Your task to perform on an android device: Open the calendar and show me this week's events? Image 0: 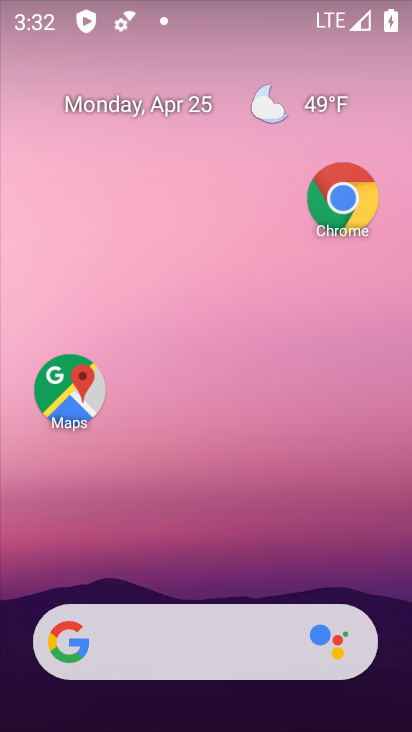
Step 0: drag from (102, 655) to (273, 168)
Your task to perform on an android device: Open the calendar and show me this week's events? Image 1: 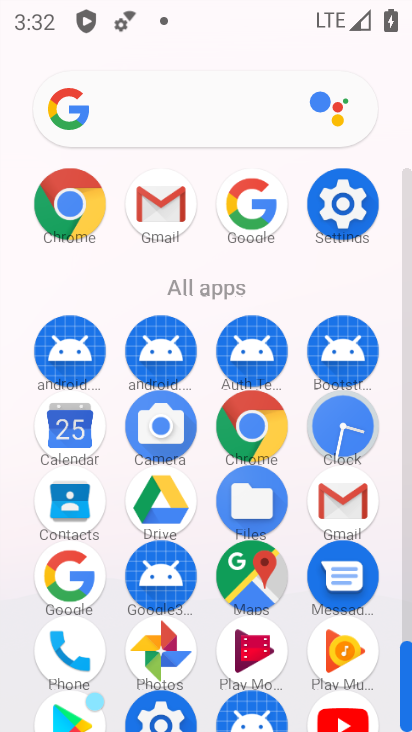
Step 1: click (71, 446)
Your task to perform on an android device: Open the calendar and show me this week's events? Image 2: 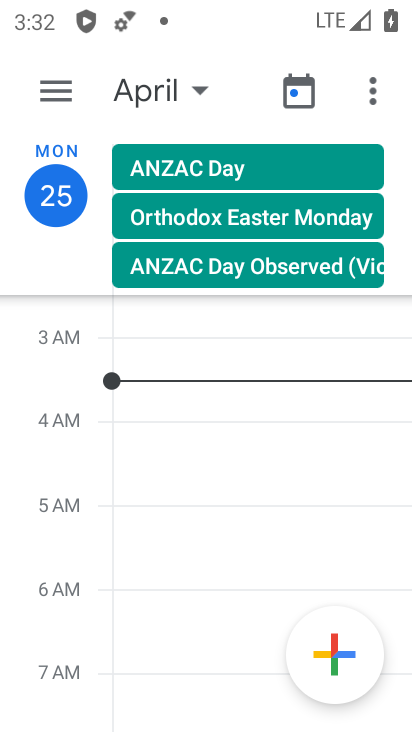
Step 2: click (136, 92)
Your task to perform on an android device: Open the calendar and show me this week's events? Image 3: 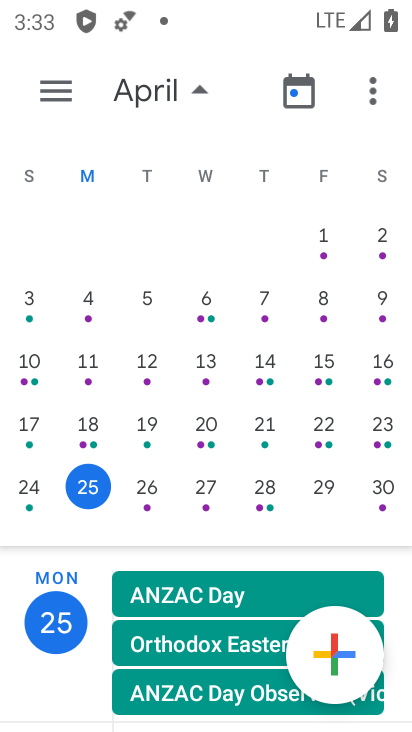
Step 3: click (48, 84)
Your task to perform on an android device: Open the calendar and show me this week's events? Image 4: 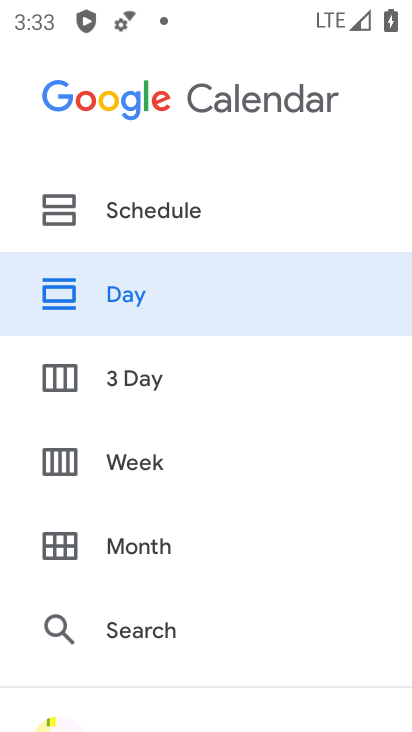
Step 4: click (135, 469)
Your task to perform on an android device: Open the calendar and show me this week's events? Image 5: 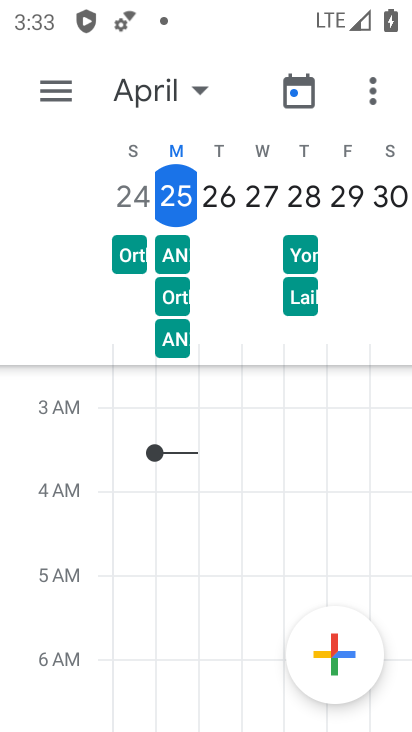
Step 5: click (63, 82)
Your task to perform on an android device: Open the calendar and show me this week's events? Image 6: 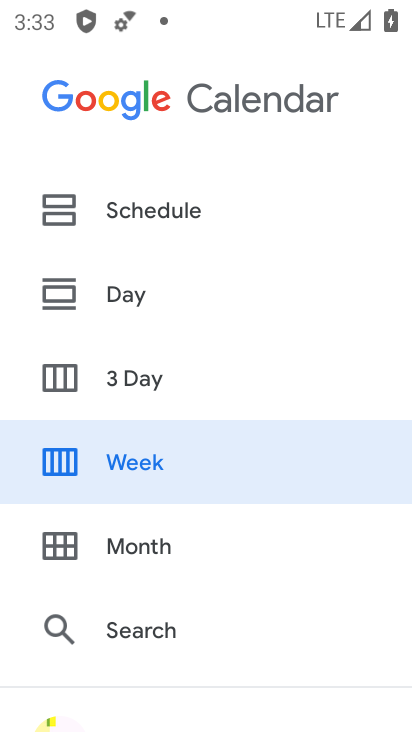
Step 6: click (158, 213)
Your task to perform on an android device: Open the calendar and show me this week's events? Image 7: 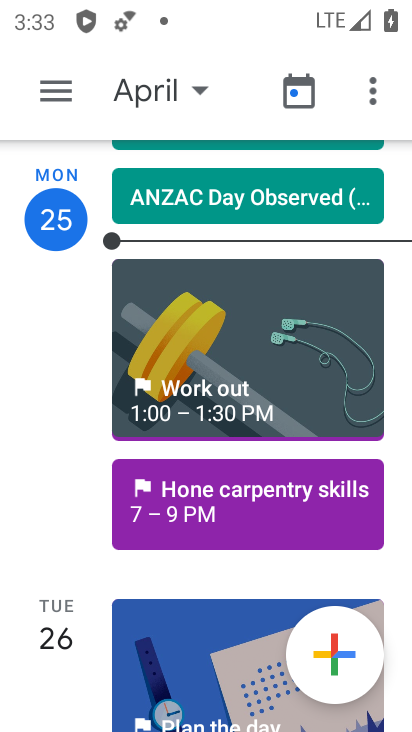
Step 7: click (261, 488)
Your task to perform on an android device: Open the calendar and show me this week's events? Image 8: 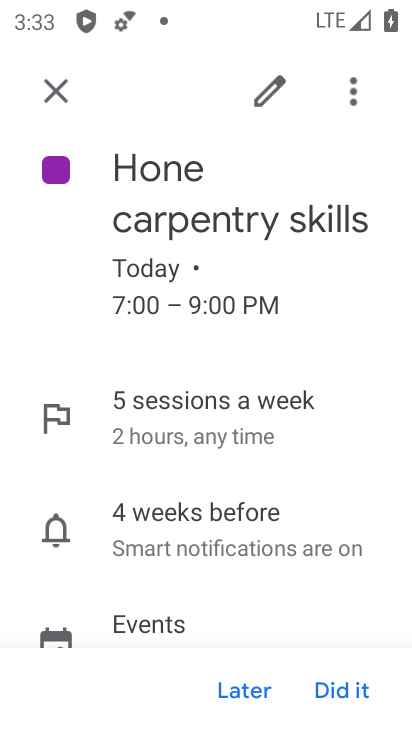
Step 8: task complete